Your task to perform on an android device: open a new tab in the chrome app Image 0: 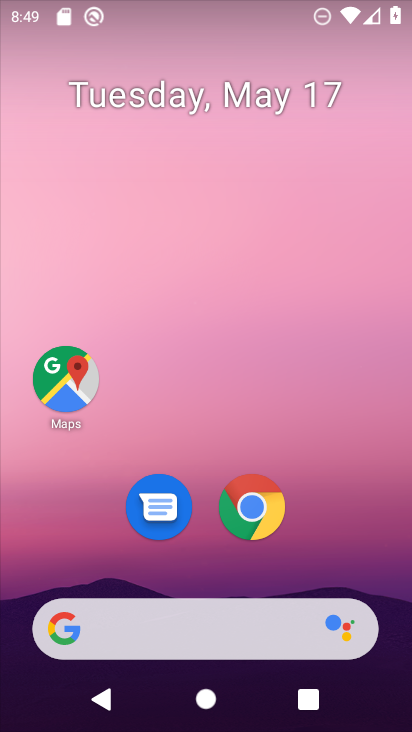
Step 0: click (250, 504)
Your task to perform on an android device: open a new tab in the chrome app Image 1: 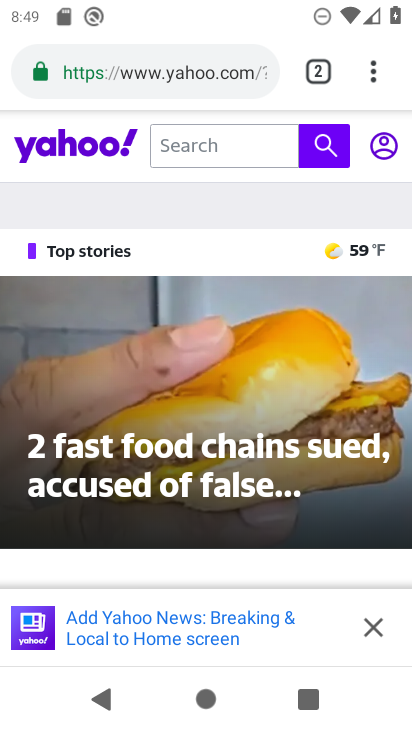
Step 1: click (374, 70)
Your task to perform on an android device: open a new tab in the chrome app Image 2: 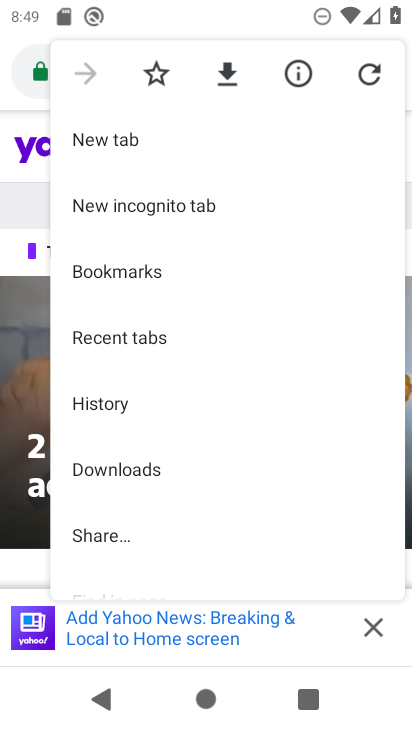
Step 2: click (120, 142)
Your task to perform on an android device: open a new tab in the chrome app Image 3: 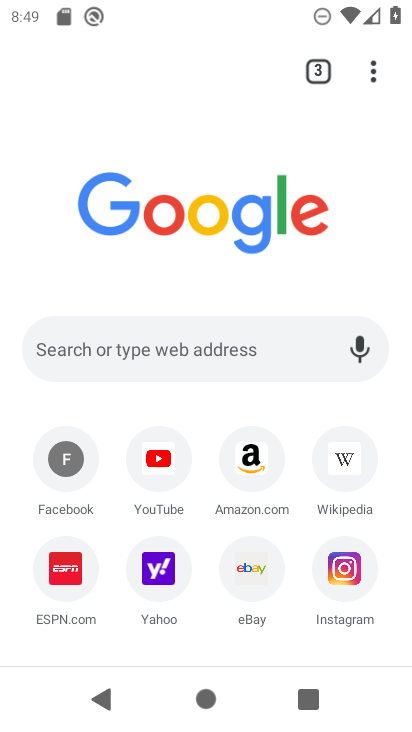
Step 3: task complete